Your task to perform on an android device: toggle sleep mode Image 0: 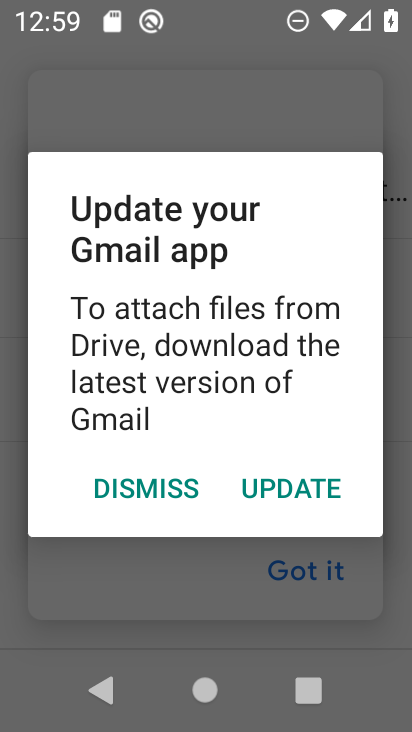
Step 0: click (190, 491)
Your task to perform on an android device: toggle sleep mode Image 1: 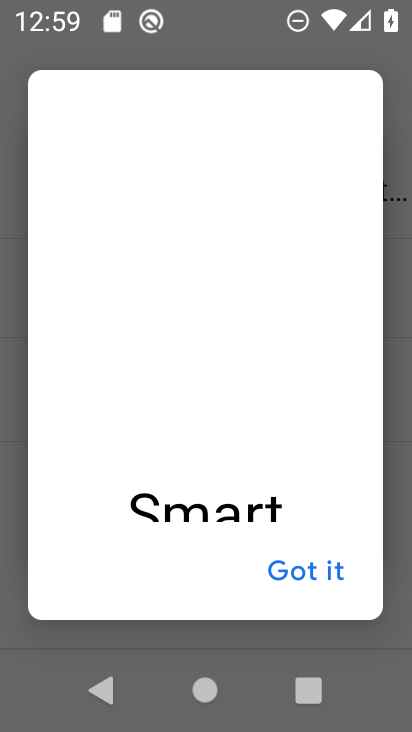
Step 1: click (282, 581)
Your task to perform on an android device: toggle sleep mode Image 2: 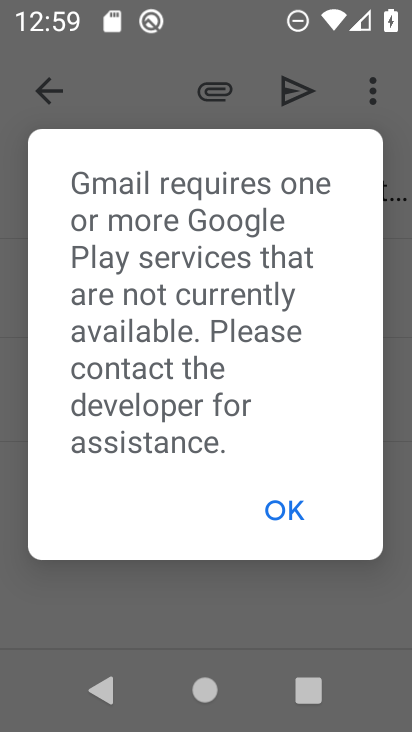
Step 2: click (295, 527)
Your task to perform on an android device: toggle sleep mode Image 3: 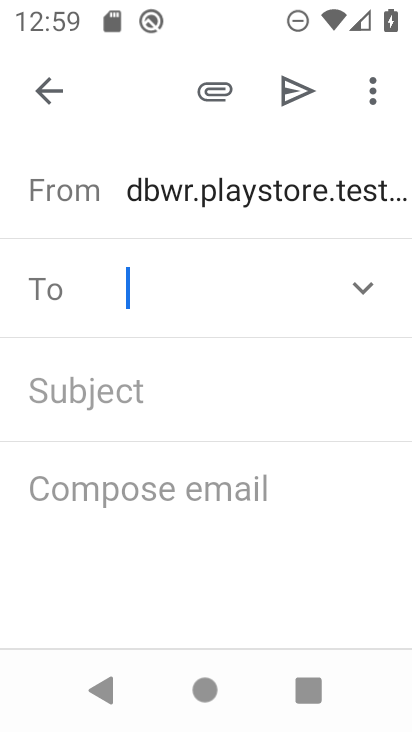
Step 3: click (302, 697)
Your task to perform on an android device: toggle sleep mode Image 4: 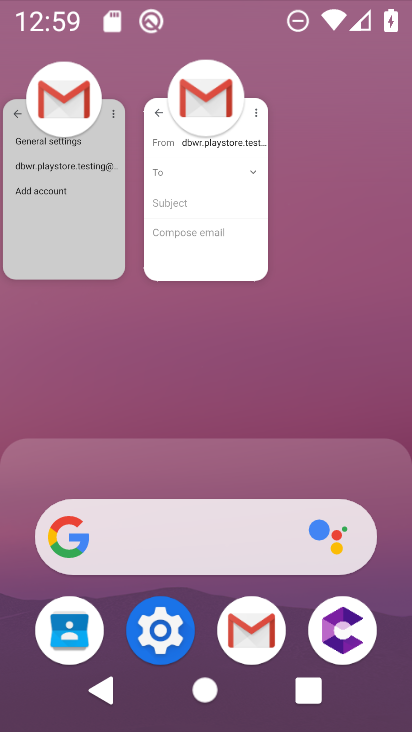
Step 4: drag from (239, 277) to (223, 10)
Your task to perform on an android device: toggle sleep mode Image 5: 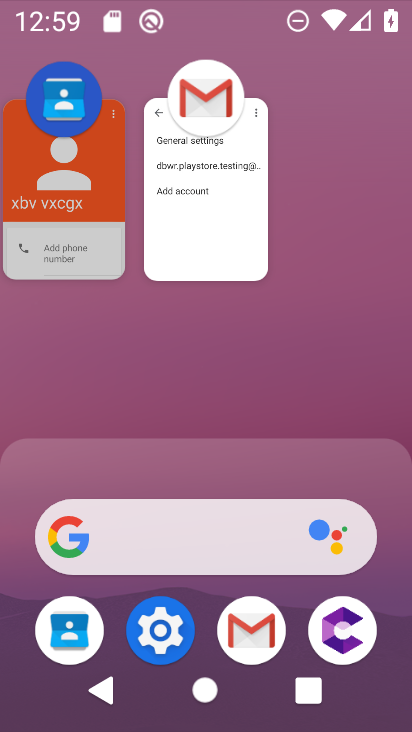
Step 5: drag from (227, 216) to (254, 31)
Your task to perform on an android device: toggle sleep mode Image 6: 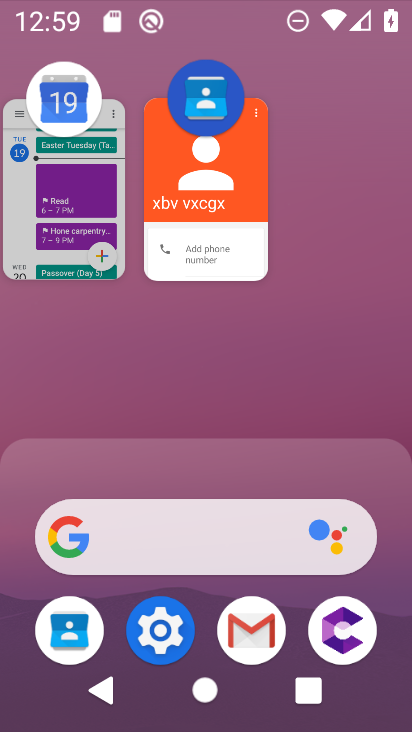
Step 6: drag from (186, 246) to (240, 44)
Your task to perform on an android device: toggle sleep mode Image 7: 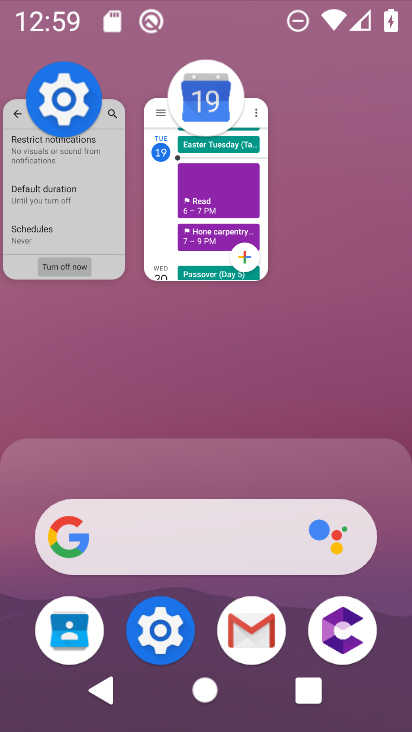
Step 7: drag from (194, 244) to (242, 1)
Your task to perform on an android device: toggle sleep mode Image 8: 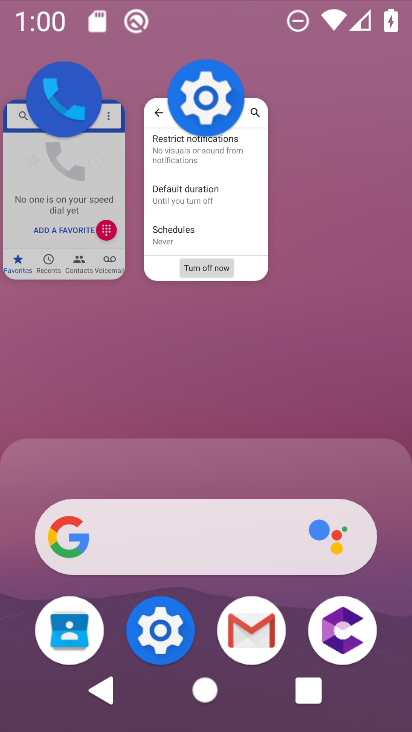
Step 8: drag from (187, 185) to (251, 1)
Your task to perform on an android device: toggle sleep mode Image 9: 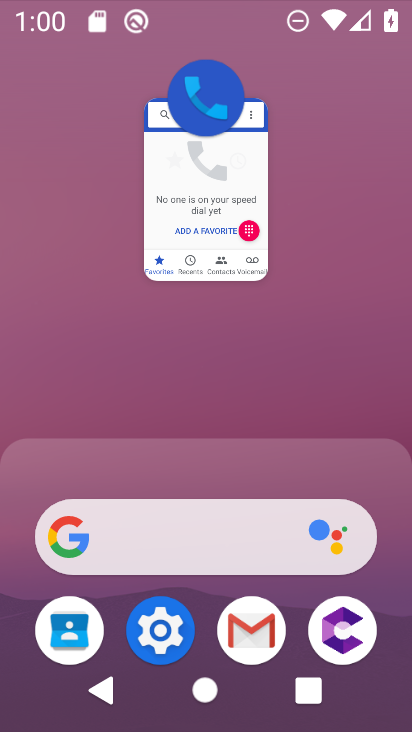
Step 9: drag from (167, 199) to (213, 3)
Your task to perform on an android device: toggle sleep mode Image 10: 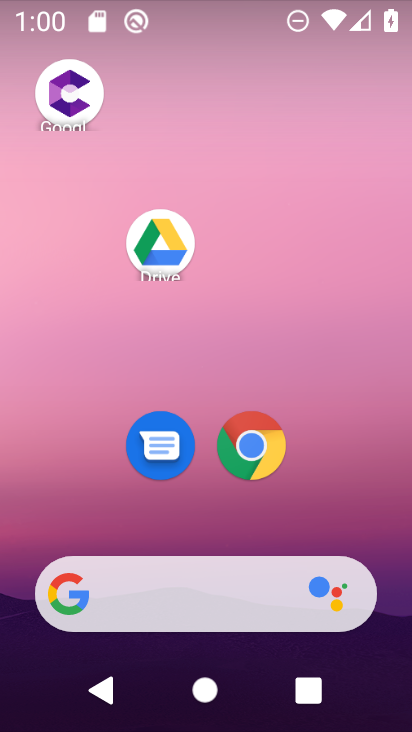
Step 10: drag from (248, 528) to (299, 182)
Your task to perform on an android device: toggle sleep mode Image 11: 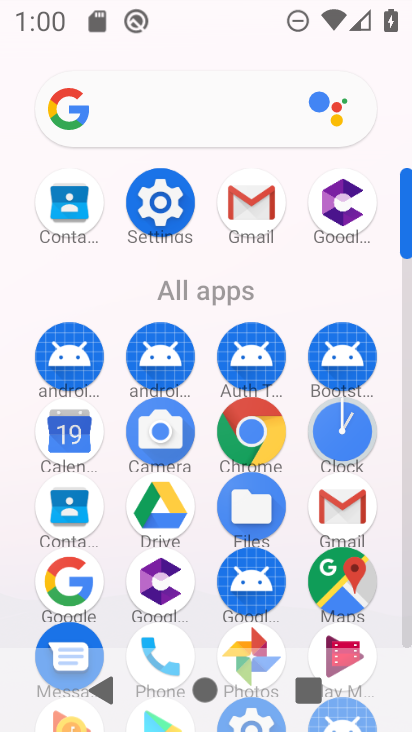
Step 11: click (178, 204)
Your task to perform on an android device: toggle sleep mode Image 12: 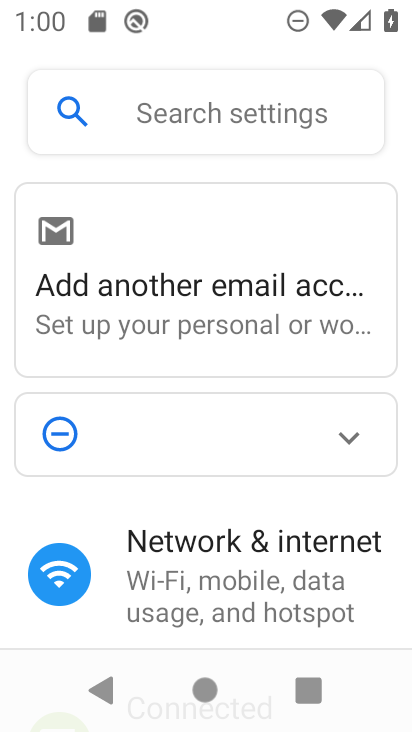
Step 12: task complete